Your task to perform on an android device: all mails in gmail Image 0: 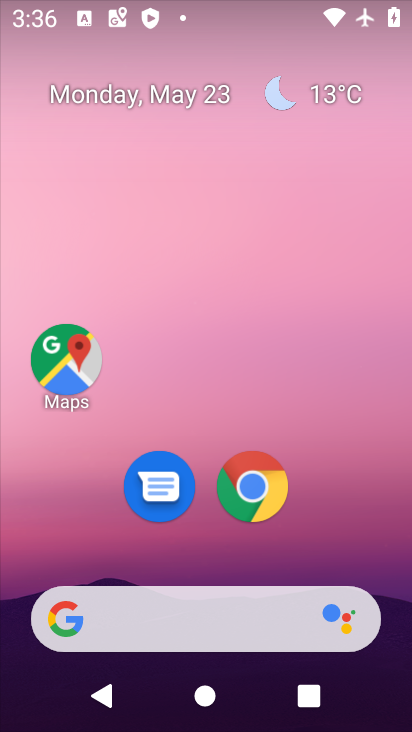
Step 0: drag from (401, 606) to (354, 67)
Your task to perform on an android device: all mails in gmail Image 1: 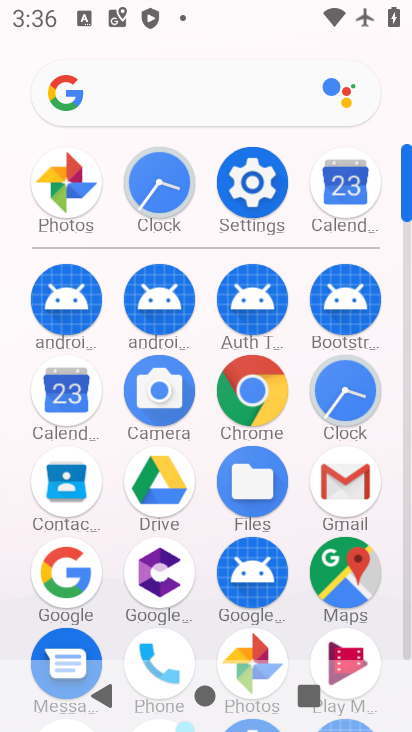
Step 1: click (409, 648)
Your task to perform on an android device: all mails in gmail Image 2: 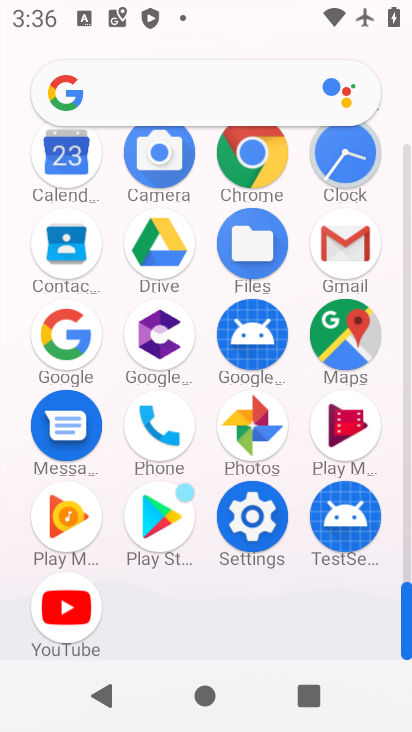
Step 2: click (339, 234)
Your task to perform on an android device: all mails in gmail Image 3: 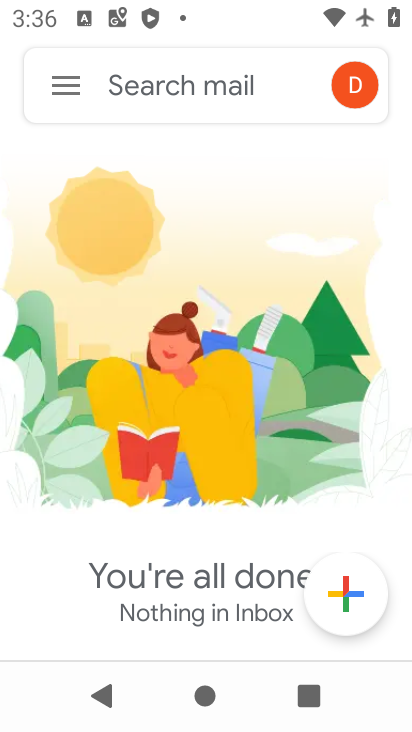
Step 3: click (56, 82)
Your task to perform on an android device: all mails in gmail Image 4: 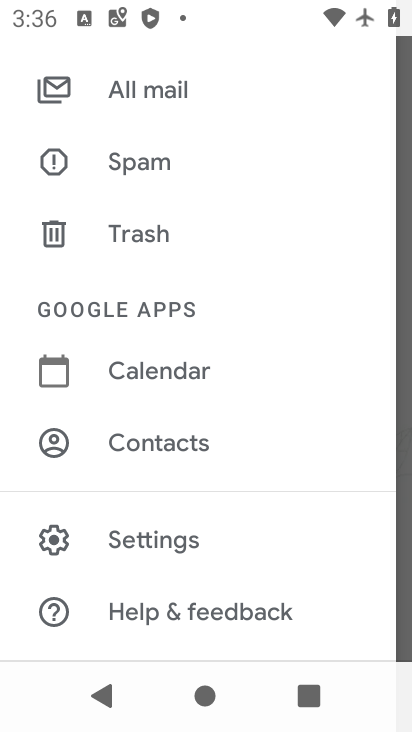
Step 4: click (153, 88)
Your task to perform on an android device: all mails in gmail Image 5: 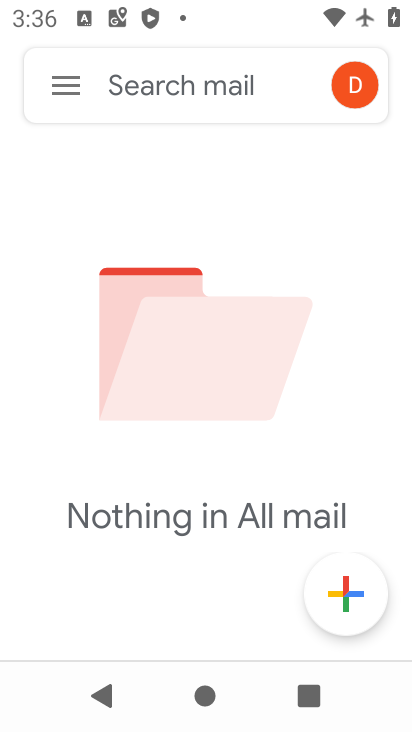
Step 5: task complete